Your task to perform on an android device: turn on location history Image 0: 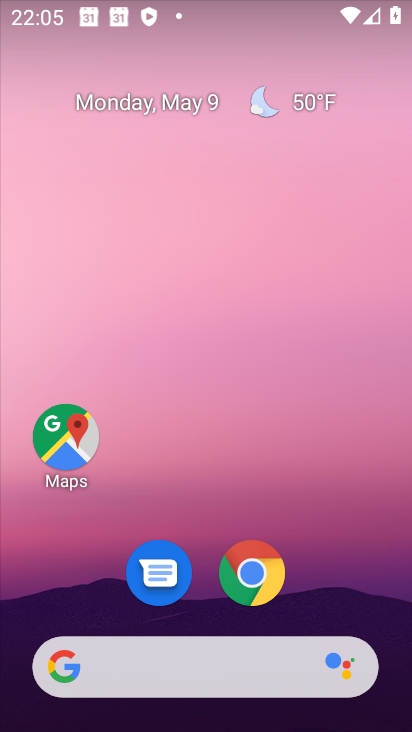
Step 0: drag from (330, 571) to (245, 135)
Your task to perform on an android device: turn on location history Image 1: 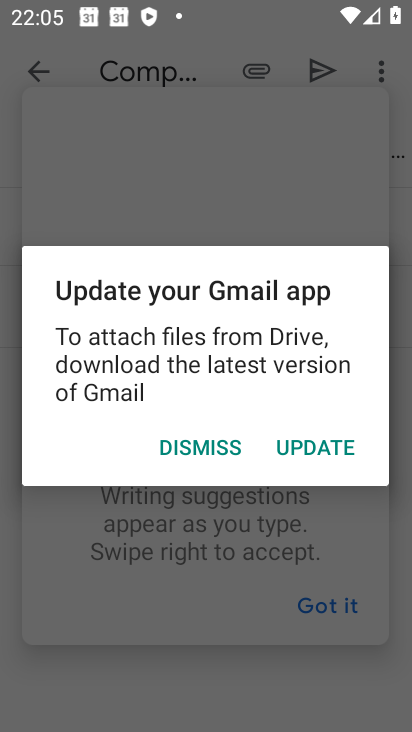
Step 1: press home button
Your task to perform on an android device: turn on location history Image 2: 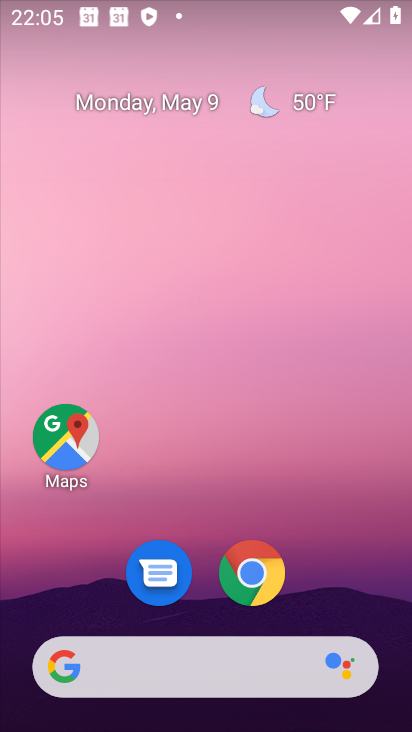
Step 2: drag from (345, 569) to (305, 176)
Your task to perform on an android device: turn on location history Image 3: 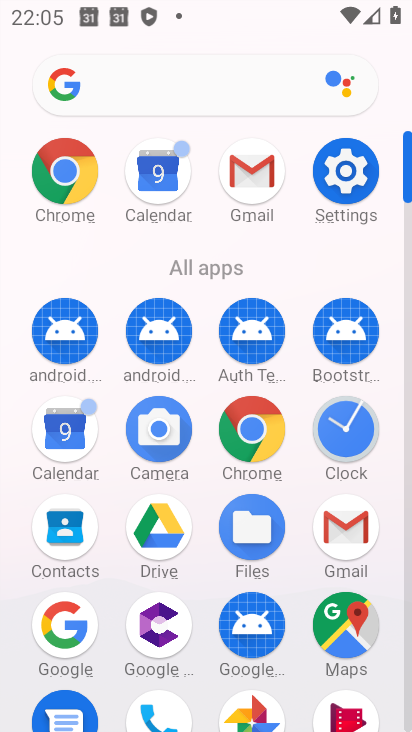
Step 3: click (348, 186)
Your task to perform on an android device: turn on location history Image 4: 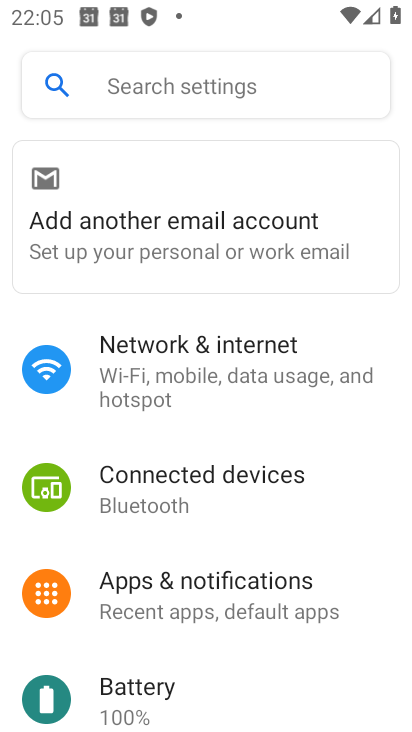
Step 4: drag from (210, 612) to (249, 233)
Your task to perform on an android device: turn on location history Image 5: 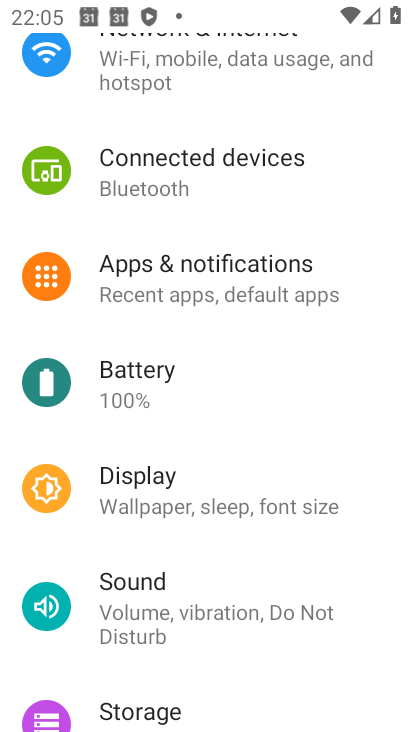
Step 5: drag from (200, 595) to (291, 268)
Your task to perform on an android device: turn on location history Image 6: 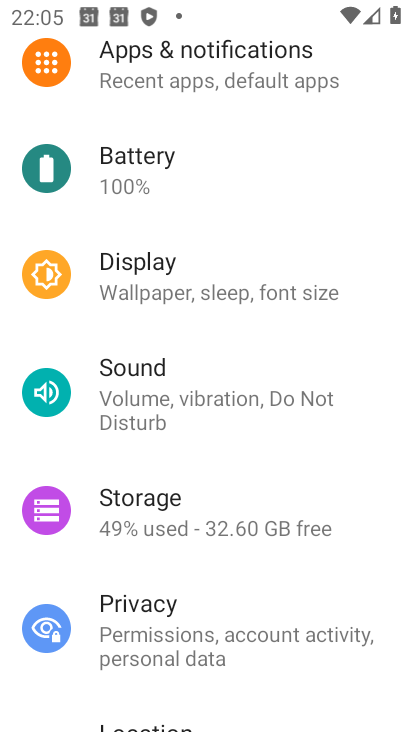
Step 6: drag from (172, 622) to (271, 283)
Your task to perform on an android device: turn on location history Image 7: 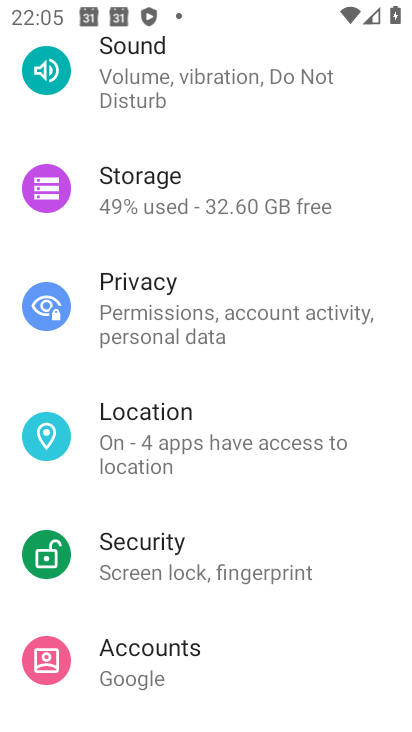
Step 7: click (190, 419)
Your task to perform on an android device: turn on location history Image 8: 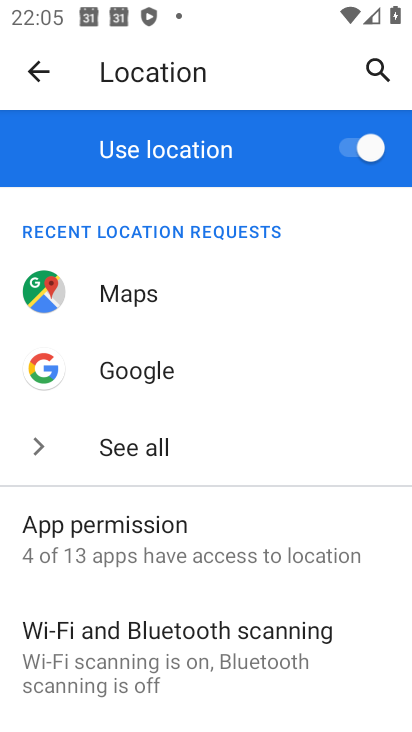
Step 8: drag from (175, 638) to (244, 131)
Your task to perform on an android device: turn on location history Image 9: 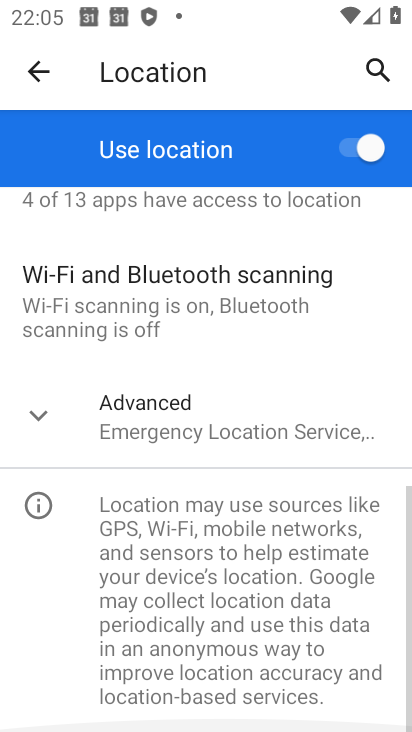
Step 9: click (175, 403)
Your task to perform on an android device: turn on location history Image 10: 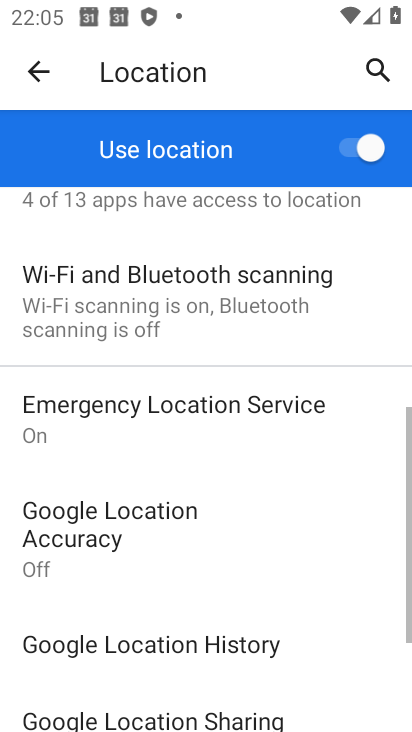
Step 10: drag from (281, 624) to (300, 422)
Your task to perform on an android device: turn on location history Image 11: 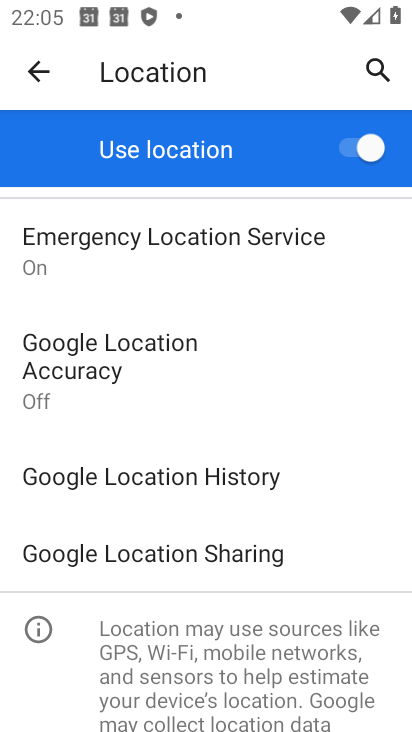
Step 11: click (214, 484)
Your task to perform on an android device: turn on location history Image 12: 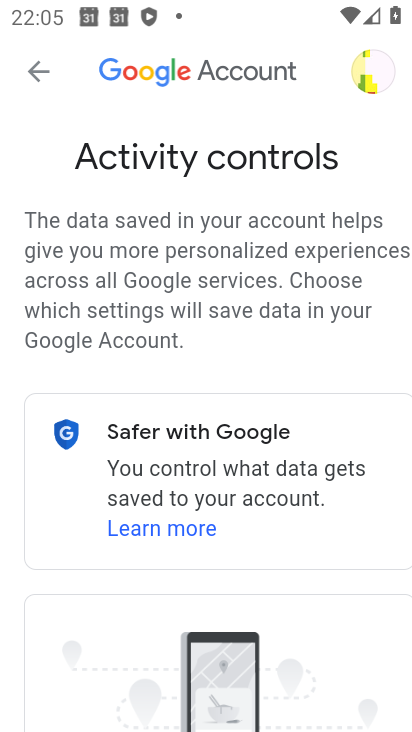
Step 12: drag from (283, 630) to (314, 161)
Your task to perform on an android device: turn on location history Image 13: 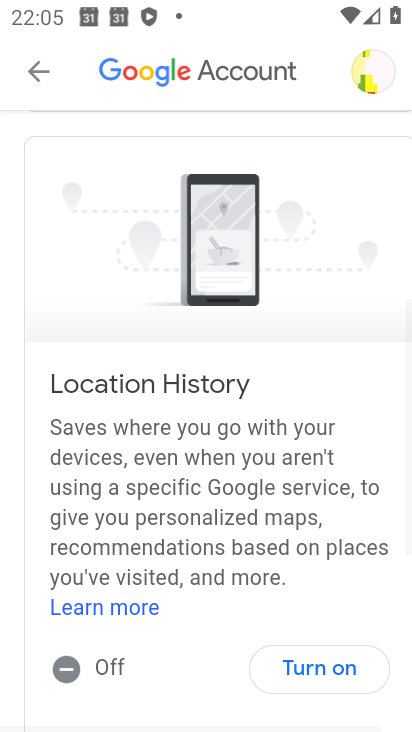
Step 13: drag from (244, 577) to (330, 230)
Your task to perform on an android device: turn on location history Image 14: 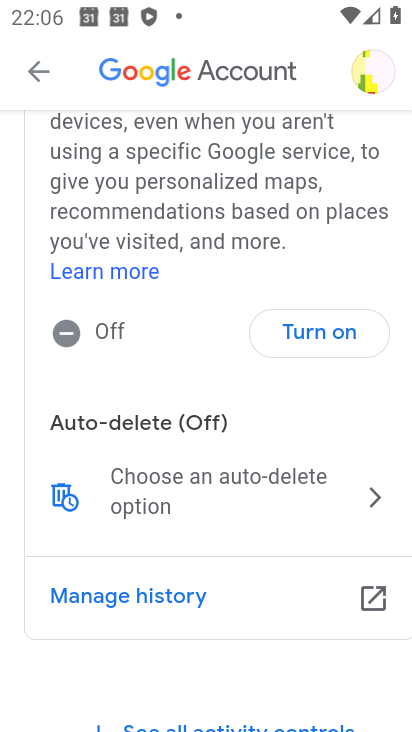
Step 14: drag from (257, 571) to (243, 164)
Your task to perform on an android device: turn on location history Image 15: 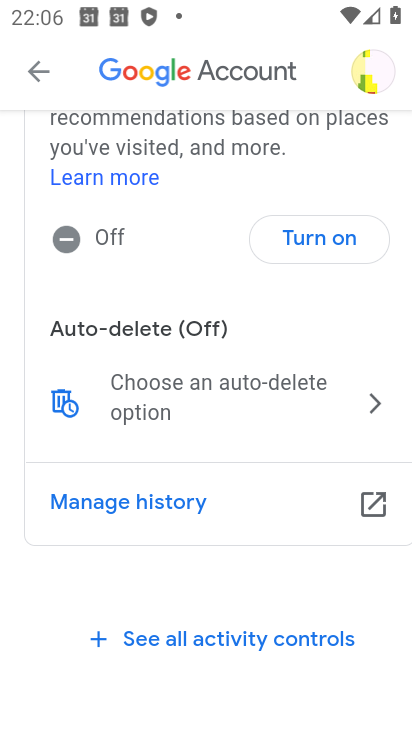
Step 15: drag from (180, 232) to (157, 534)
Your task to perform on an android device: turn on location history Image 16: 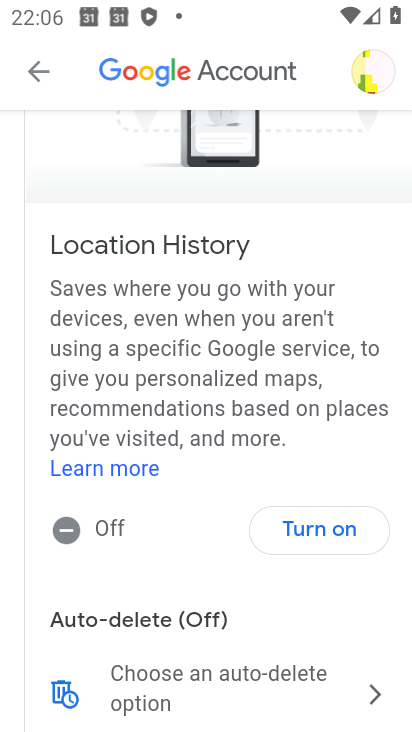
Step 16: drag from (195, 268) to (188, 327)
Your task to perform on an android device: turn on location history Image 17: 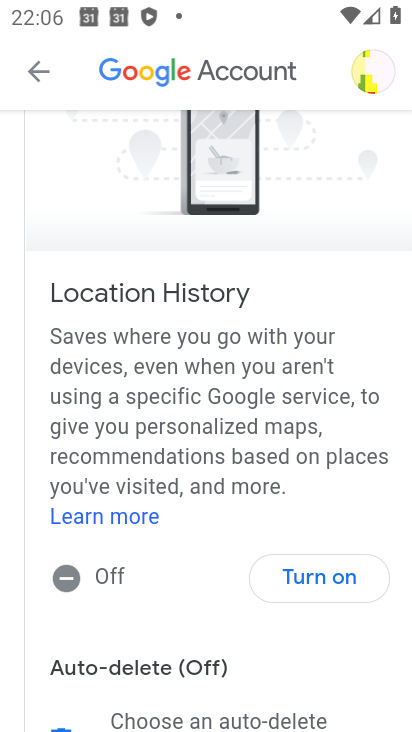
Step 17: click (346, 603)
Your task to perform on an android device: turn on location history Image 18: 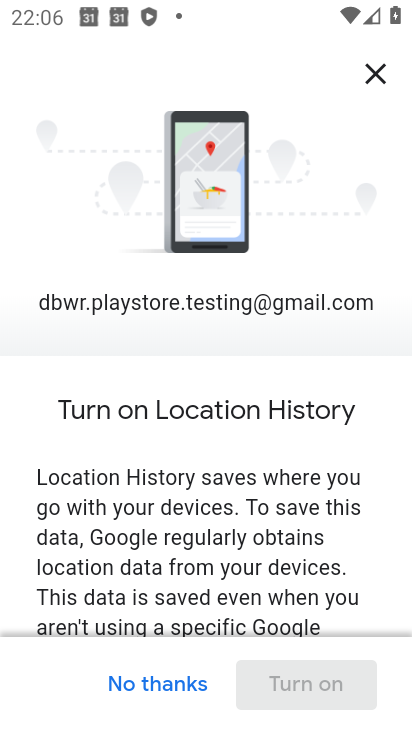
Step 18: drag from (302, 535) to (332, 137)
Your task to perform on an android device: turn on location history Image 19: 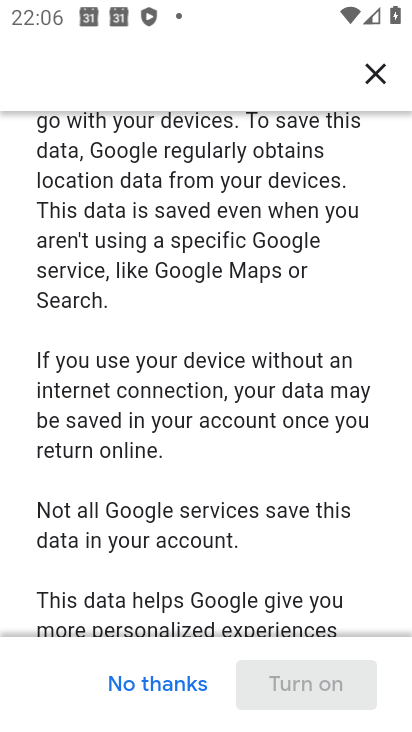
Step 19: drag from (256, 536) to (254, 125)
Your task to perform on an android device: turn on location history Image 20: 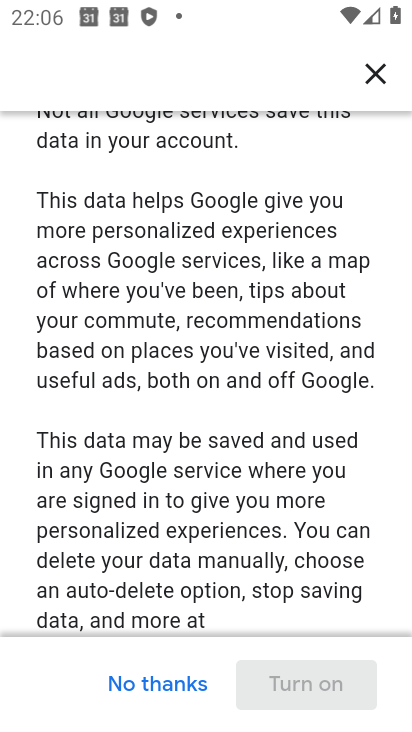
Step 20: drag from (279, 496) to (299, 0)
Your task to perform on an android device: turn on location history Image 21: 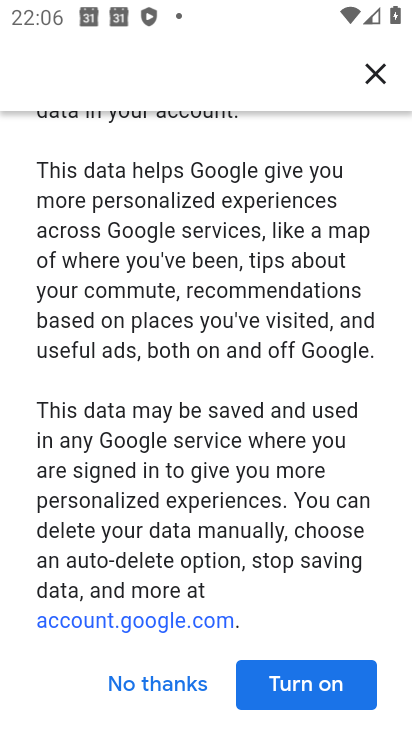
Step 21: click (315, 667)
Your task to perform on an android device: turn on location history Image 22: 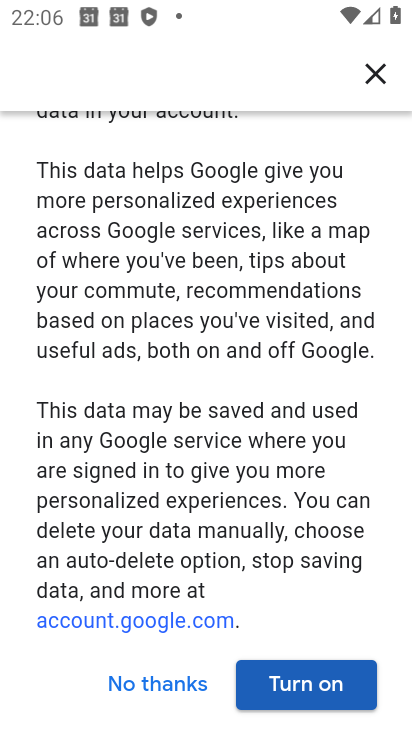
Step 22: click (314, 687)
Your task to perform on an android device: turn on location history Image 23: 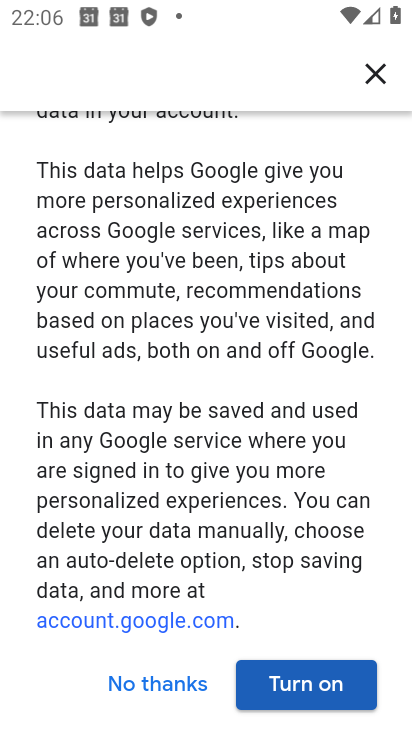
Step 23: click (288, 694)
Your task to perform on an android device: turn on location history Image 24: 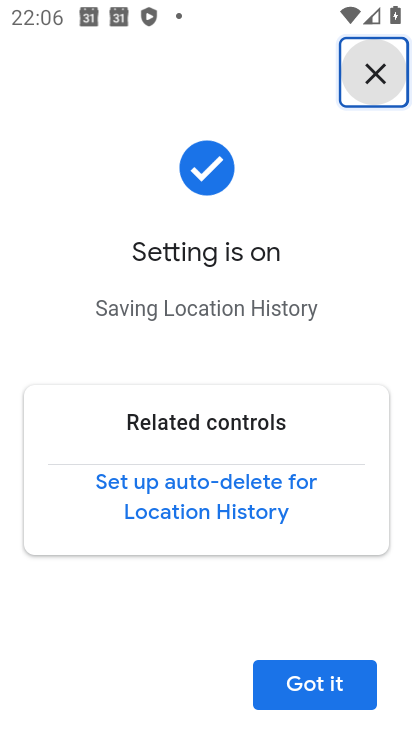
Step 24: task complete